Your task to perform on an android device: open a bookmark in the chrome app Image 0: 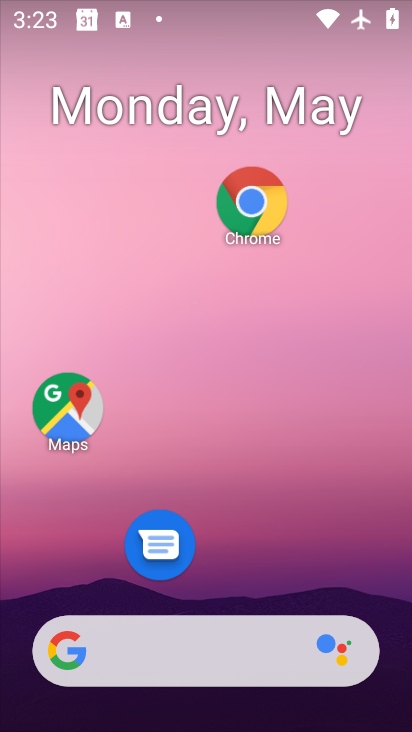
Step 0: click (262, 226)
Your task to perform on an android device: open a bookmark in the chrome app Image 1: 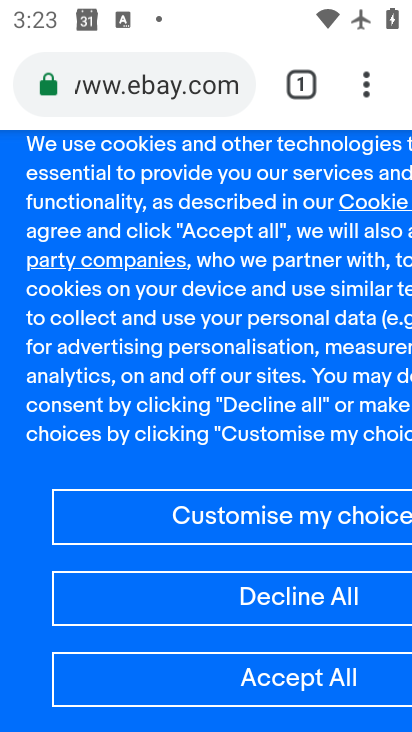
Step 1: task complete